Your task to perform on an android device: turn on showing notifications on the lock screen Image 0: 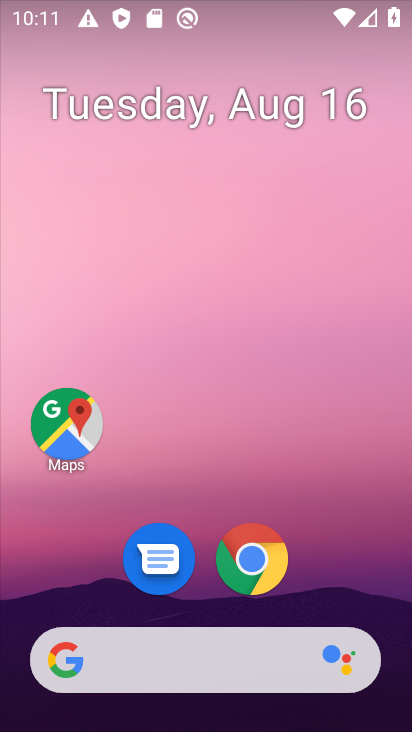
Step 0: drag from (195, 552) to (189, 177)
Your task to perform on an android device: turn on showing notifications on the lock screen Image 1: 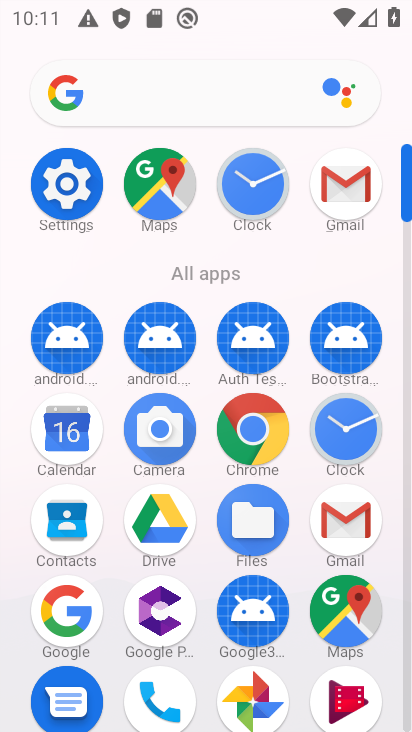
Step 1: click (62, 189)
Your task to perform on an android device: turn on showing notifications on the lock screen Image 2: 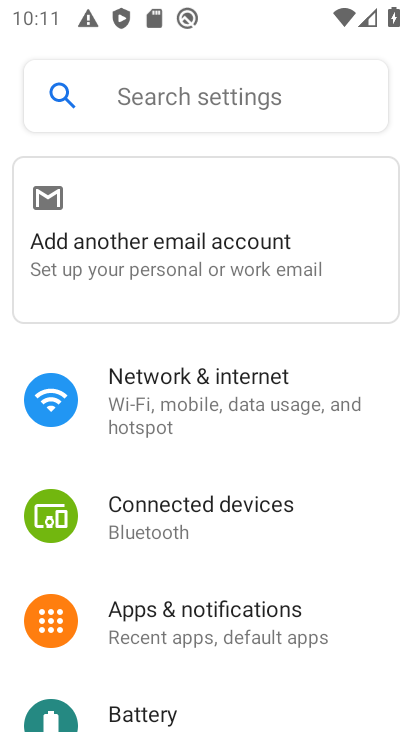
Step 2: drag from (224, 672) to (264, 341)
Your task to perform on an android device: turn on showing notifications on the lock screen Image 3: 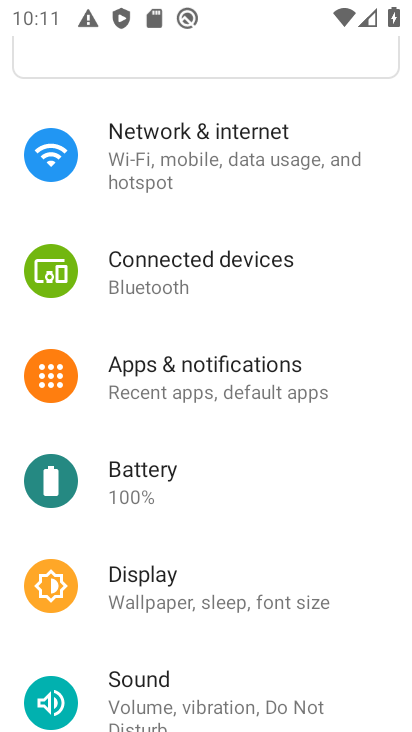
Step 3: drag from (236, 665) to (250, 365)
Your task to perform on an android device: turn on showing notifications on the lock screen Image 4: 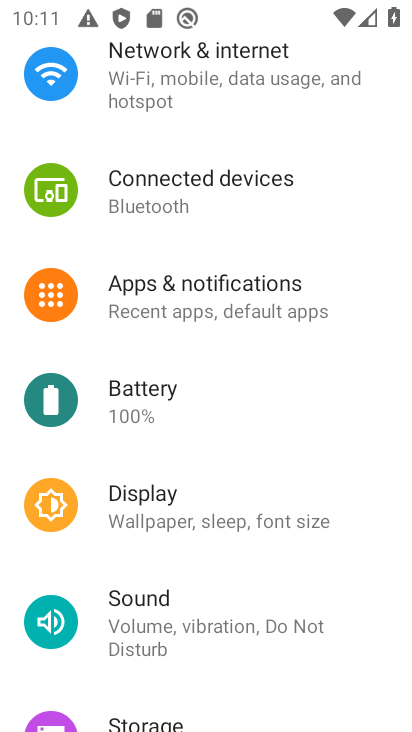
Step 4: drag from (234, 621) to (263, 421)
Your task to perform on an android device: turn on showing notifications on the lock screen Image 5: 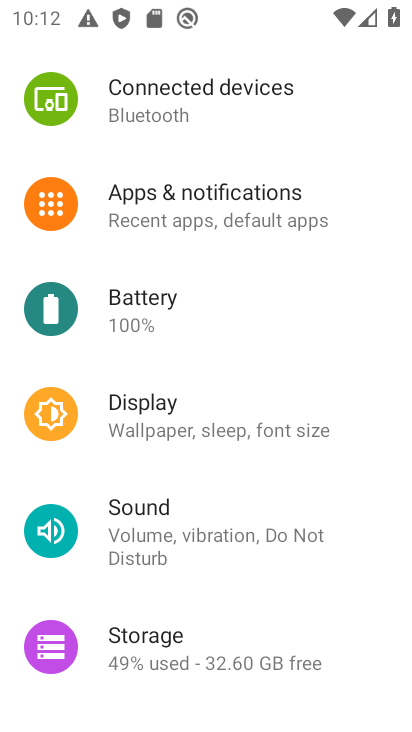
Step 5: click (174, 214)
Your task to perform on an android device: turn on showing notifications on the lock screen Image 6: 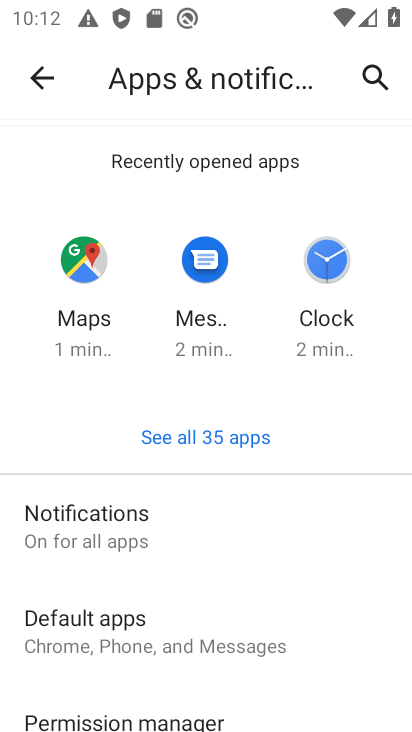
Step 6: click (135, 528)
Your task to perform on an android device: turn on showing notifications on the lock screen Image 7: 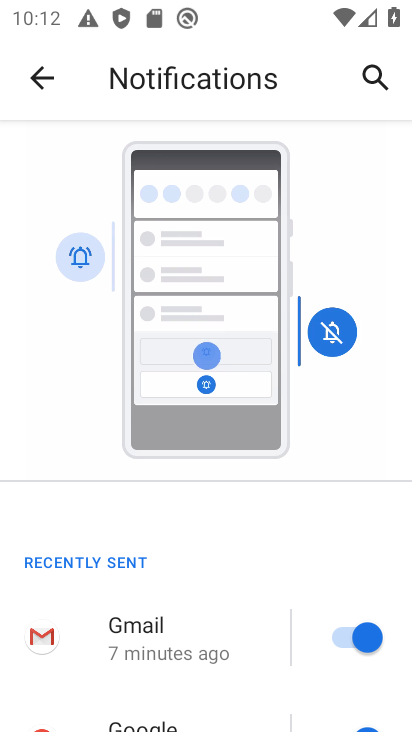
Step 7: drag from (200, 605) to (272, 190)
Your task to perform on an android device: turn on showing notifications on the lock screen Image 8: 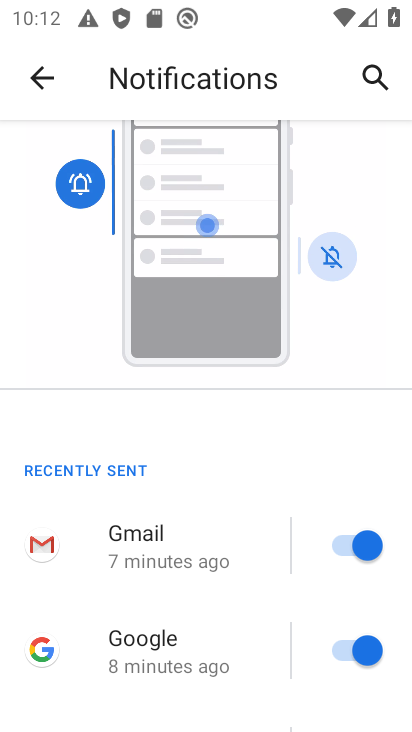
Step 8: drag from (243, 395) to (260, 351)
Your task to perform on an android device: turn on showing notifications on the lock screen Image 9: 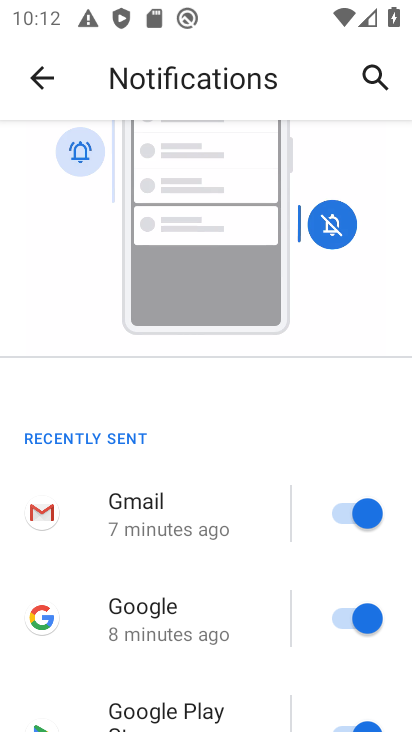
Step 9: drag from (279, 540) to (299, 199)
Your task to perform on an android device: turn on showing notifications on the lock screen Image 10: 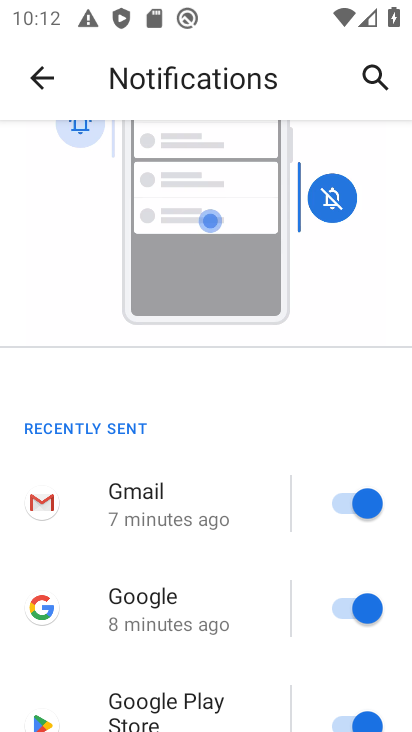
Step 10: drag from (240, 442) to (242, 305)
Your task to perform on an android device: turn on showing notifications on the lock screen Image 11: 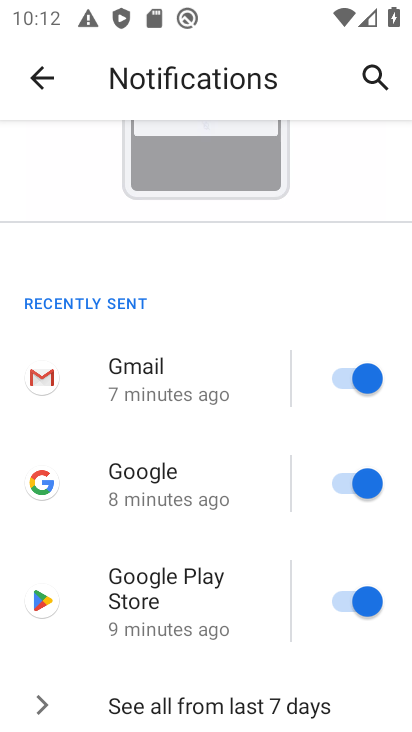
Step 11: drag from (213, 638) to (234, 358)
Your task to perform on an android device: turn on showing notifications on the lock screen Image 12: 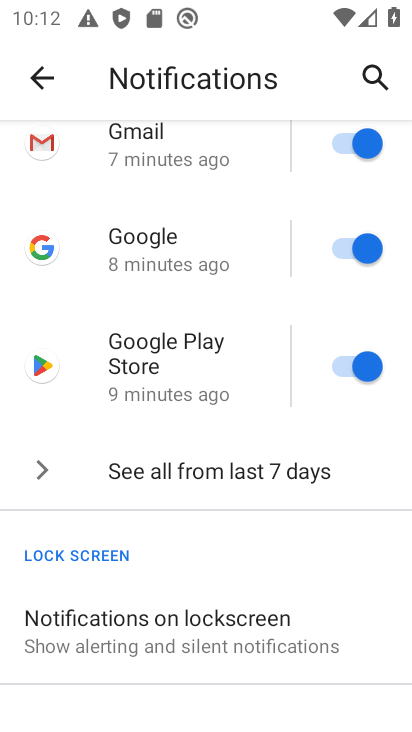
Step 12: click (221, 648)
Your task to perform on an android device: turn on showing notifications on the lock screen Image 13: 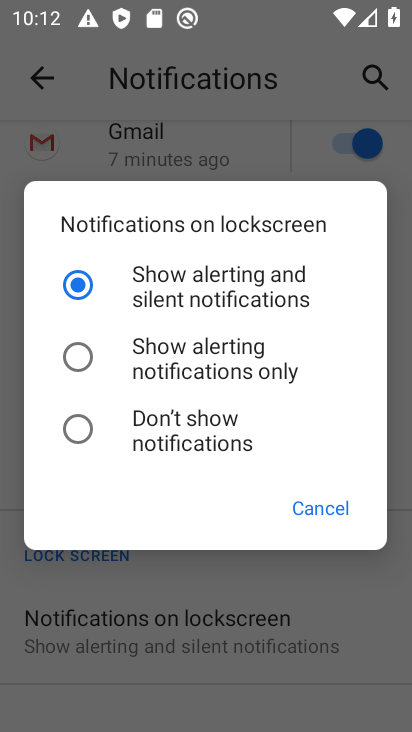
Step 13: task complete